Your task to perform on an android device: Search for Mexican restaurants on Maps Image 0: 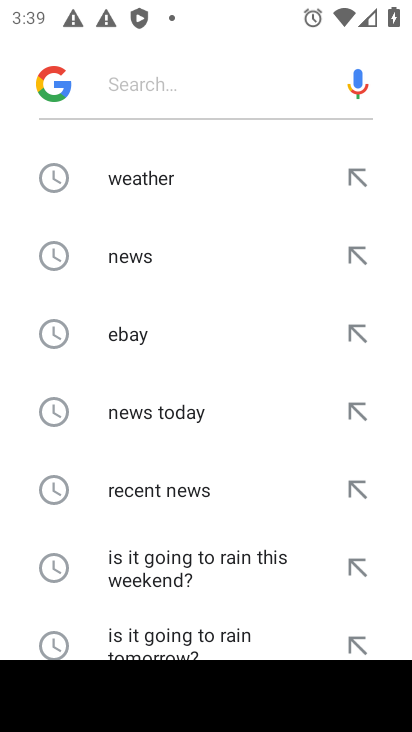
Step 0: press home button
Your task to perform on an android device: Search for Mexican restaurants on Maps Image 1: 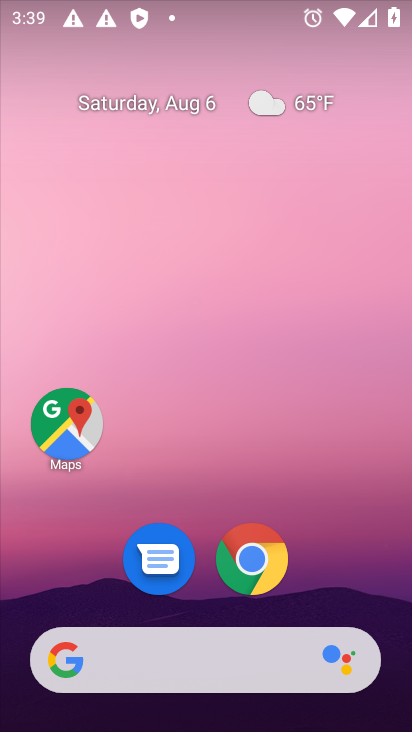
Step 1: click (60, 415)
Your task to perform on an android device: Search for Mexican restaurants on Maps Image 2: 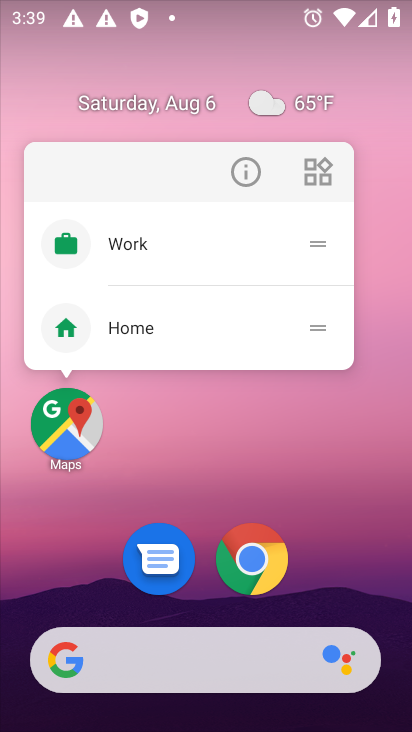
Step 2: click (67, 419)
Your task to perform on an android device: Search for Mexican restaurants on Maps Image 3: 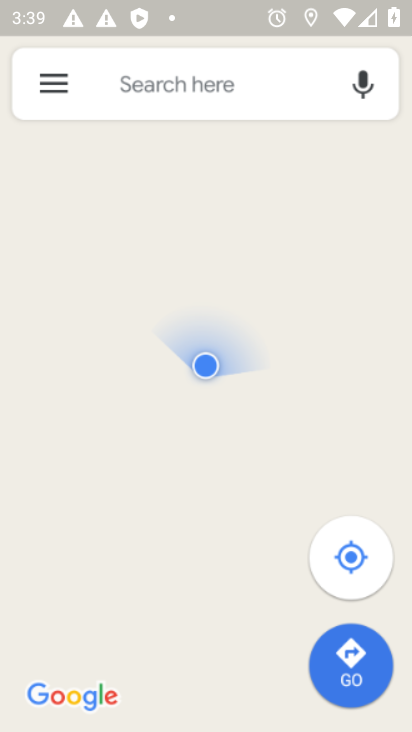
Step 3: click (194, 90)
Your task to perform on an android device: Search for Mexican restaurants on Maps Image 4: 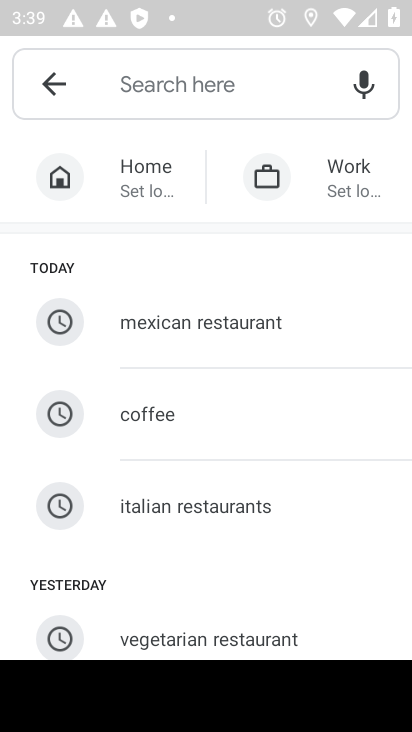
Step 4: click (229, 315)
Your task to perform on an android device: Search for Mexican restaurants on Maps Image 5: 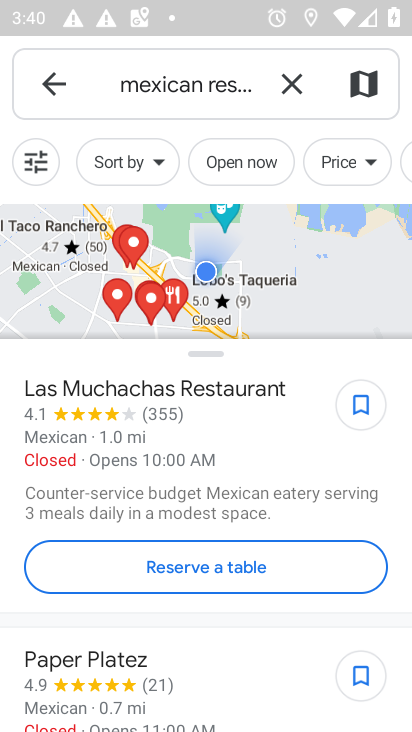
Step 5: task complete